Your task to perform on an android device: Show me recent news Image 0: 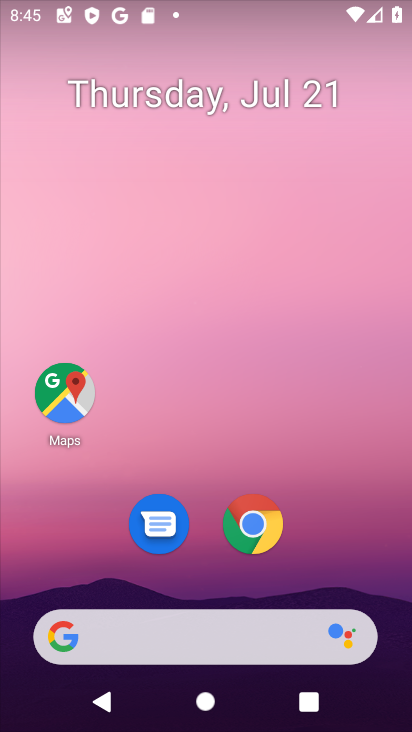
Step 0: press home button
Your task to perform on an android device: Show me recent news Image 1: 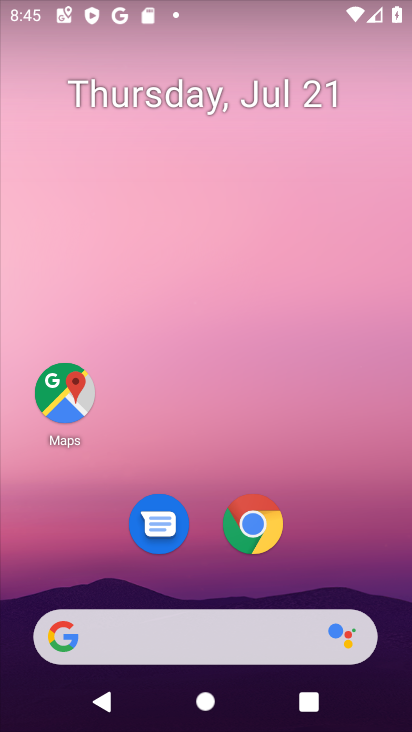
Step 1: click (193, 625)
Your task to perform on an android device: Show me recent news Image 2: 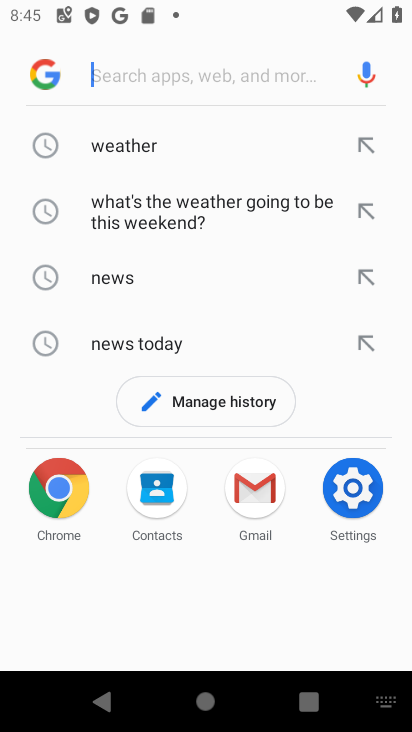
Step 2: click (124, 282)
Your task to perform on an android device: Show me recent news Image 3: 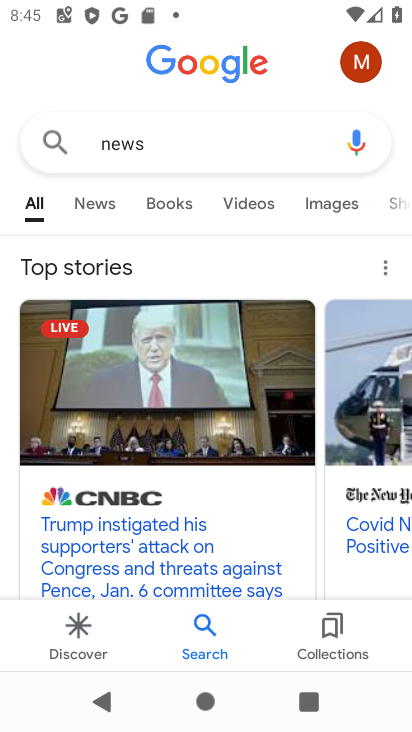
Step 3: click (99, 204)
Your task to perform on an android device: Show me recent news Image 4: 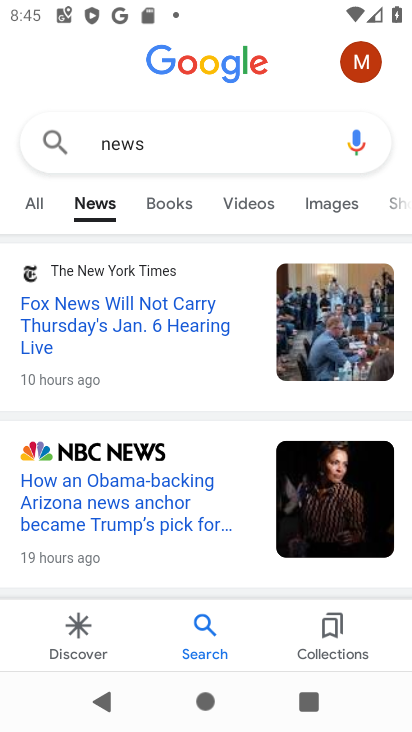
Step 4: task complete